Your task to perform on an android device: open a new tab in the chrome app Image 0: 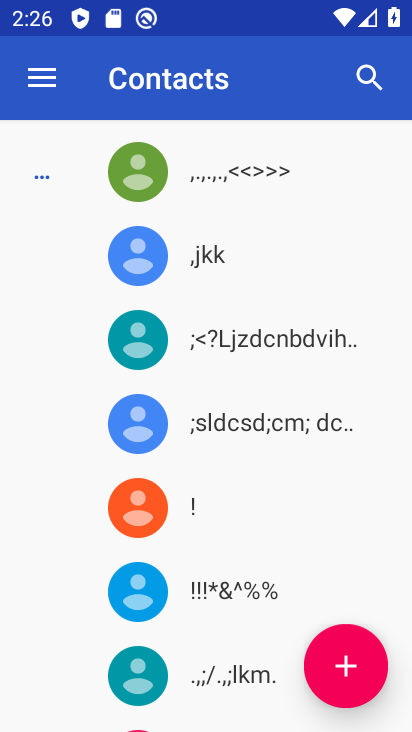
Step 0: press home button
Your task to perform on an android device: open a new tab in the chrome app Image 1: 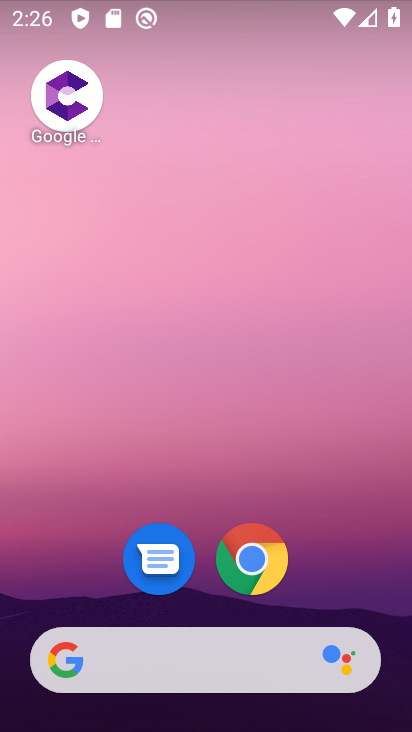
Step 1: click (276, 563)
Your task to perform on an android device: open a new tab in the chrome app Image 2: 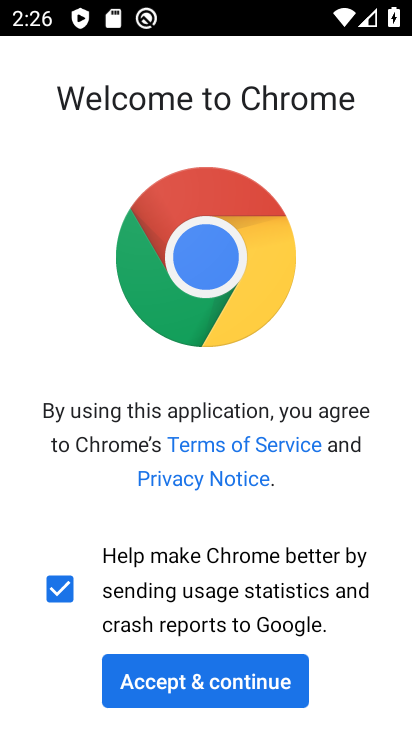
Step 2: click (245, 679)
Your task to perform on an android device: open a new tab in the chrome app Image 3: 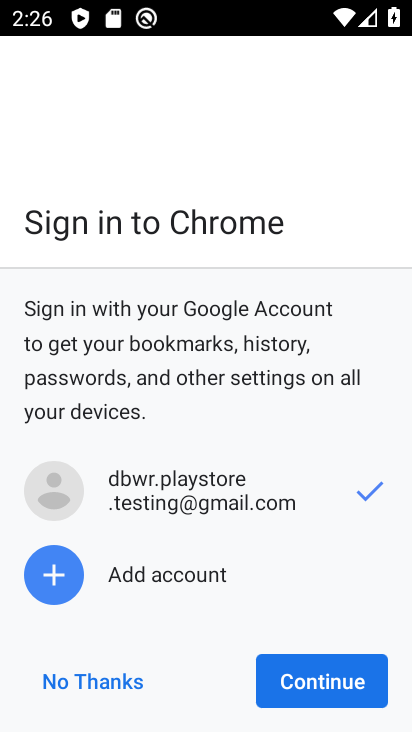
Step 3: click (304, 690)
Your task to perform on an android device: open a new tab in the chrome app Image 4: 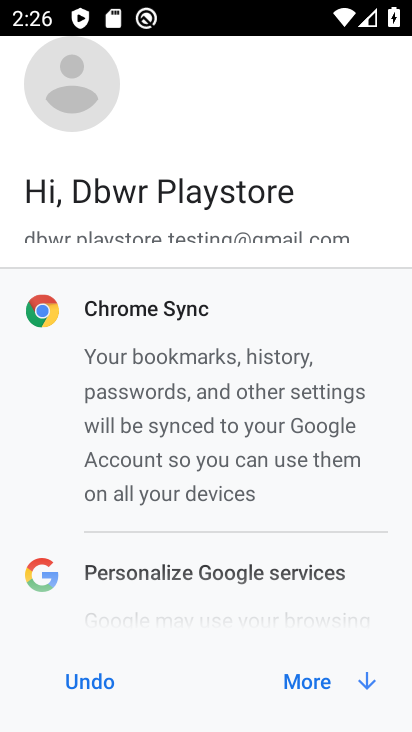
Step 4: click (304, 690)
Your task to perform on an android device: open a new tab in the chrome app Image 5: 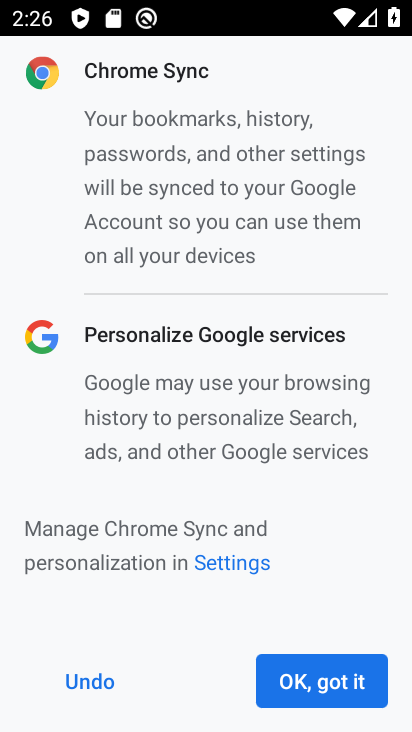
Step 5: click (304, 690)
Your task to perform on an android device: open a new tab in the chrome app Image 6: 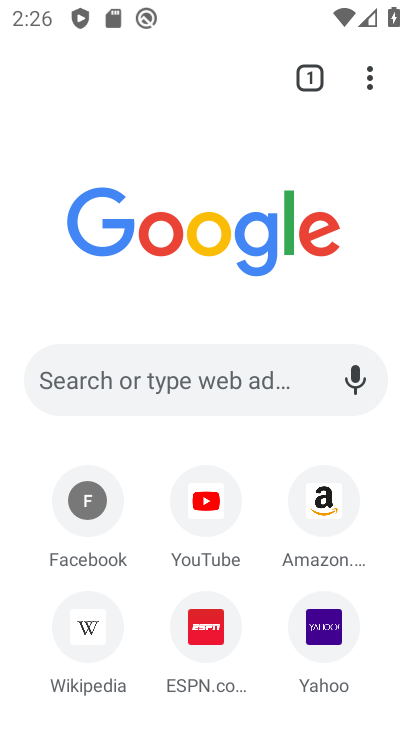
Step 6: click (371, 88)
Your task to perform on an android device: open a new tab in the chrome app Image 7: 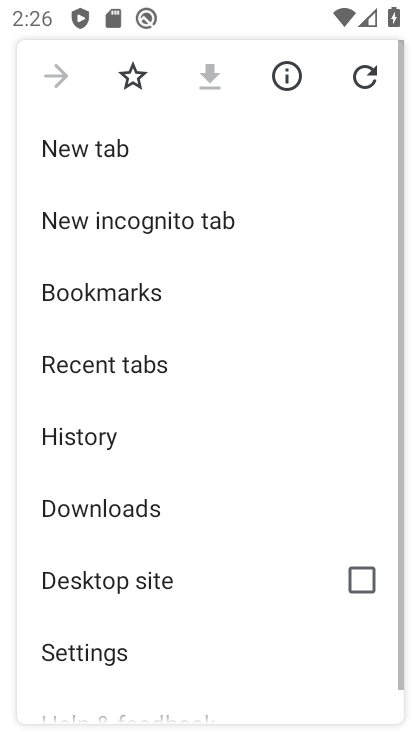
Step 7: click (226, 160)
Your task to perform on an android device: open a new tab in the chrome app Image 8: 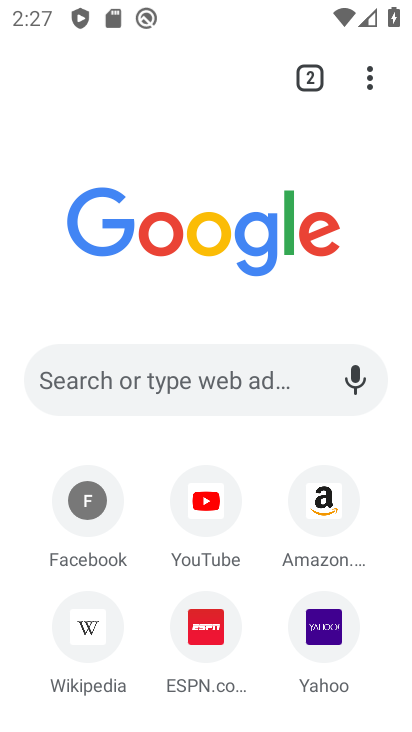
Step 8: click (378, 80)
Your task to perform on an android device: open a new tab in the chrome app Image 9: 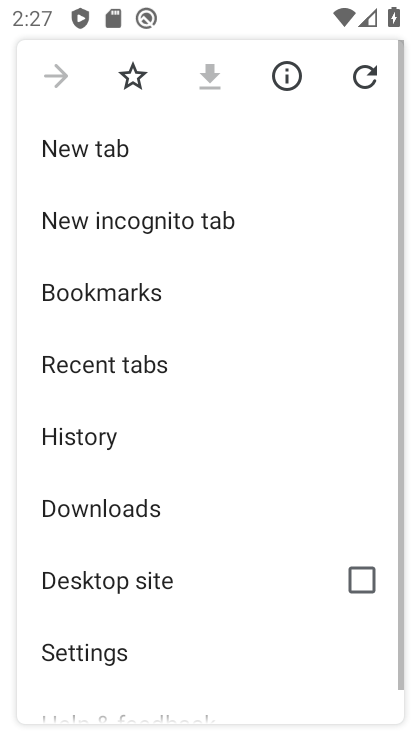
Step 9: click (255, 152)
Your task to perform on an android device: open a new tab in the chrome app Image 10: 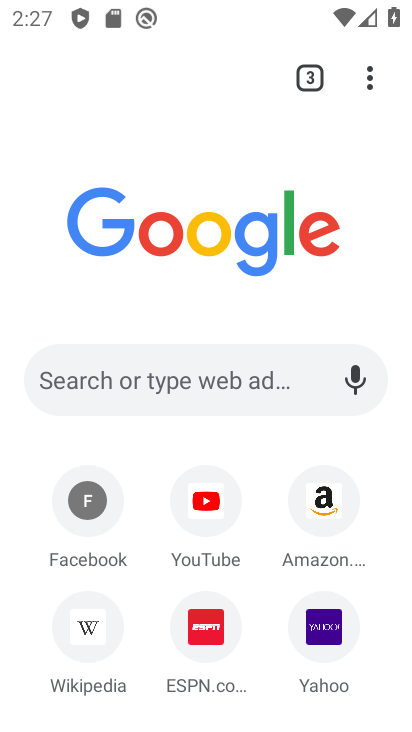
Step 10: task complete